Your task to perform on an android device: change alarm snooze length Image 0: 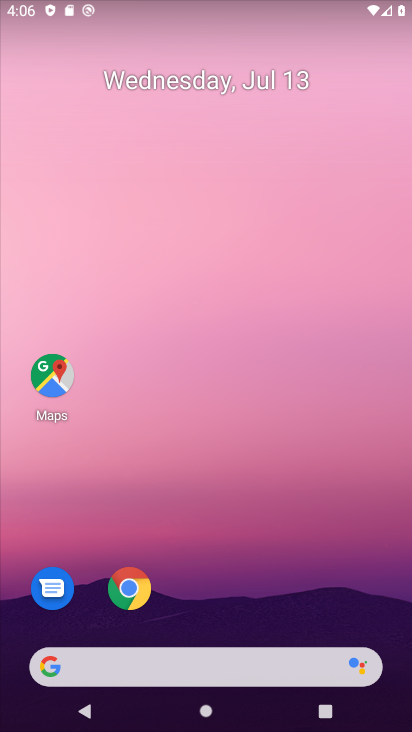
Step 0: drag from (20, 690) to (244, 8)
Your task to perform on an android device: change alarm snooze length Image 1: 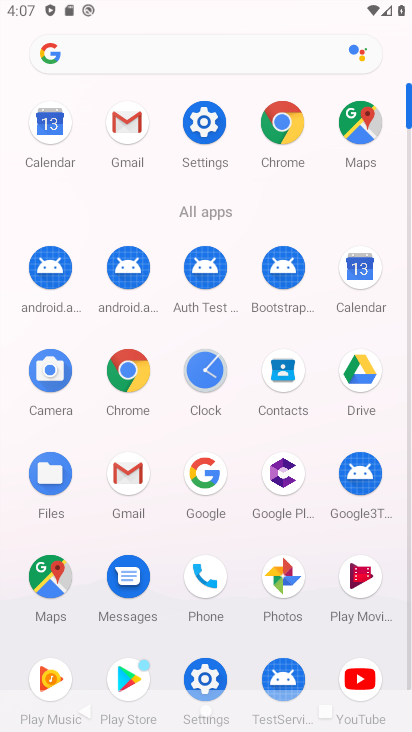
Step 1: click (214, 372)
Your task to perform on an android device: change alarm snooze length Image 2: 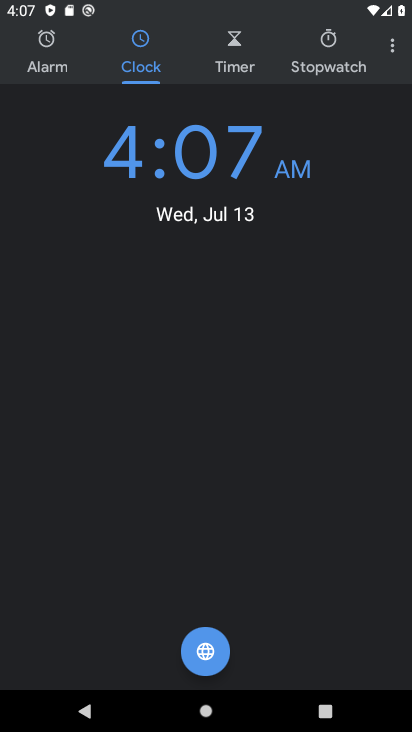
Step 2: click (62, 66)
Your task to perform on an android device: change alarm snooze length Image 3: 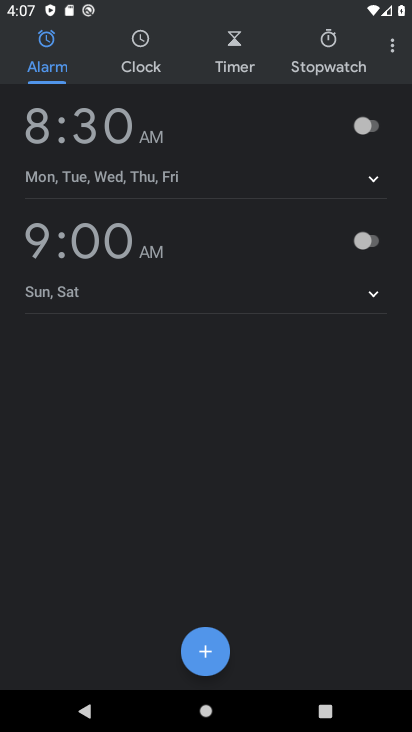
Step 3: click (398, 46)
Your task to perform on an android device: change alarm snooze length Image 4: 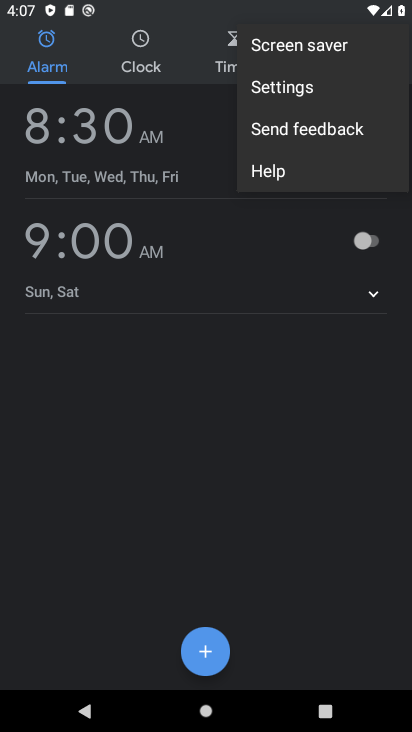
Step 4: click (284, 91)
Your task to perform on an android device: change alarm snooze length Image 5: 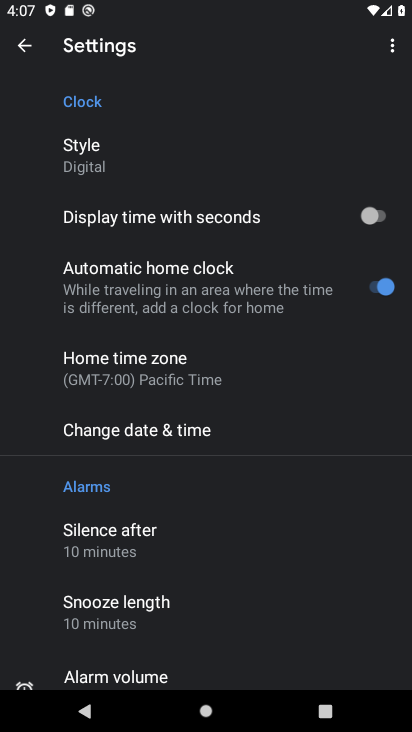
Step 5: click (103, 545)
Your task to perform on an android device: change alarm snooze length Image 6: 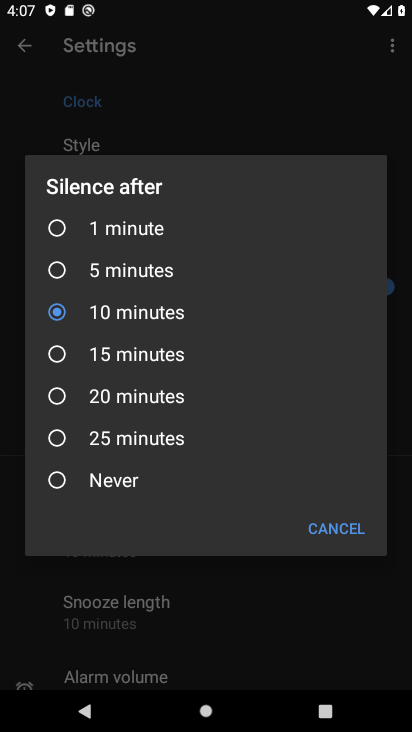
Step 6: click (342, 507)
Your task to perform on an android device: change alarm snooze length Image 7: 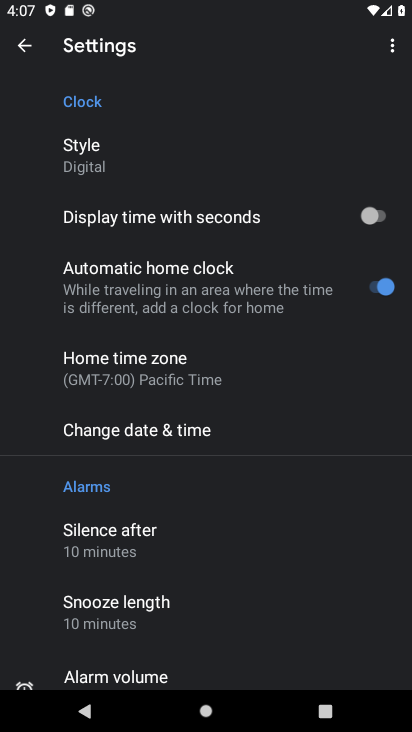
Step 7: click (342, 521)
Your task to perform on an android device: change alarm snooze length Image 8: 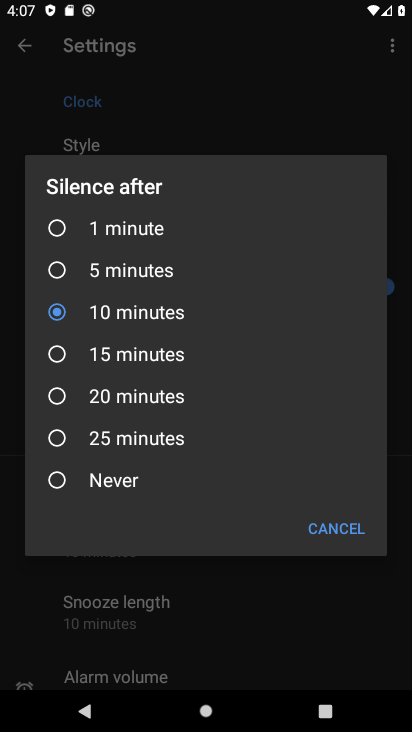
Step 8: click (186, 591)
Your task to perform on an android device: change alarm snooze length Image 9: 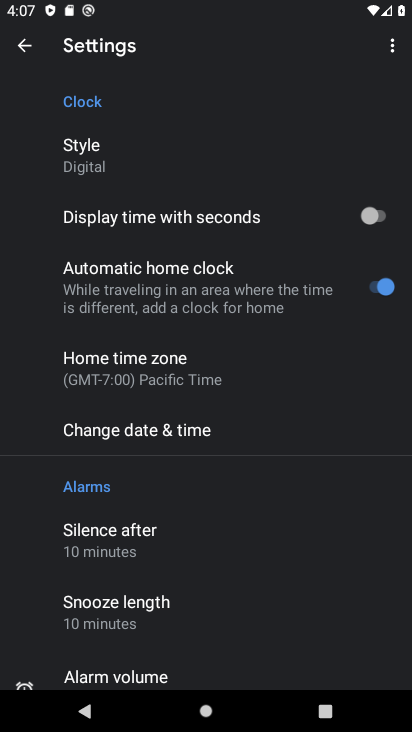
Step 9: click (337, 529)
Your task to perform on an android device: change alarm snooze length Image 10: 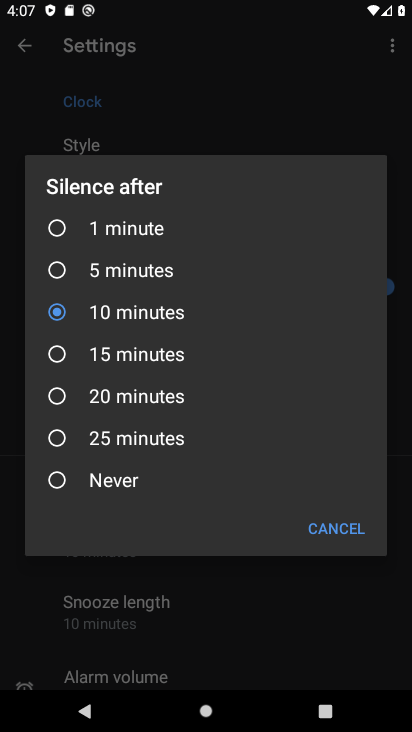
Step 10: click (108, 616)
Your task to perform on an android device: change alarm snooze length Image 11: 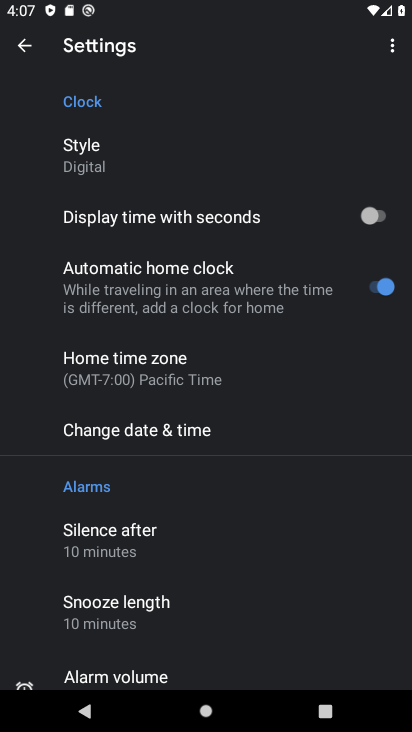
Step 11: click (101, 606)
Your task to perform on an android device: change alarm snooze length Image 12: 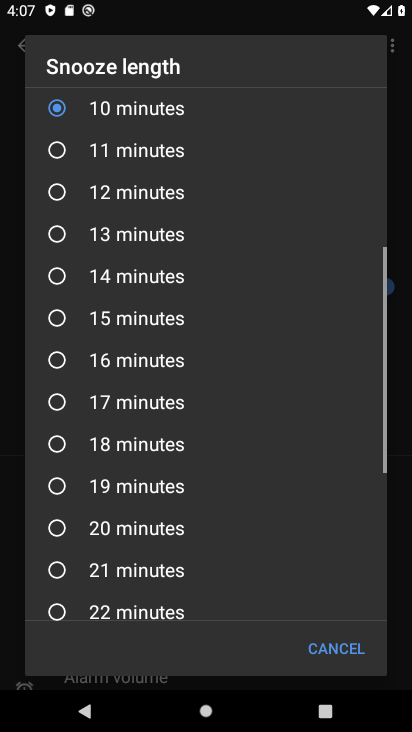
Step 12: click (114, 358)
Your task to perform on an android device: change alarm snooze length Image 13: 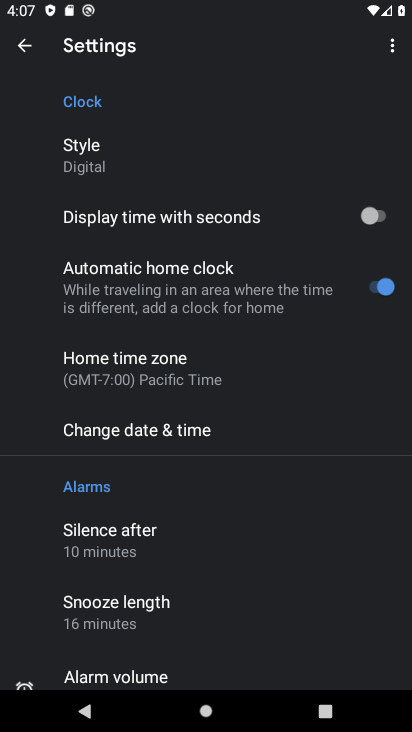
Step 13: task complete